Your task to perform on an android device: check the backup settings in the google photos Image 0: 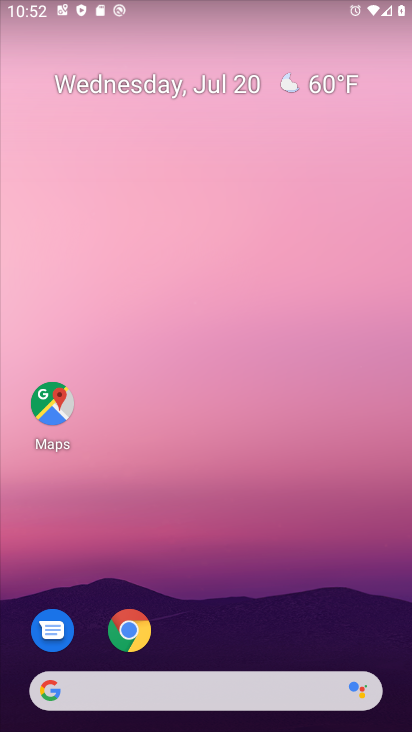
Step 0: drag from (224, 685) to (203, 140)
Your task to perform on an android device: check the backup settings in the google photos Image 1: 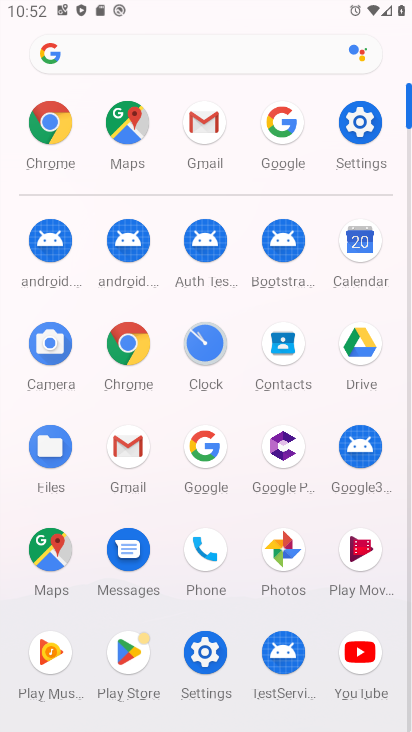
Step 1: click (279, 544)
Your task to perform on an android device: check the backup settings in the google photos Image 2: 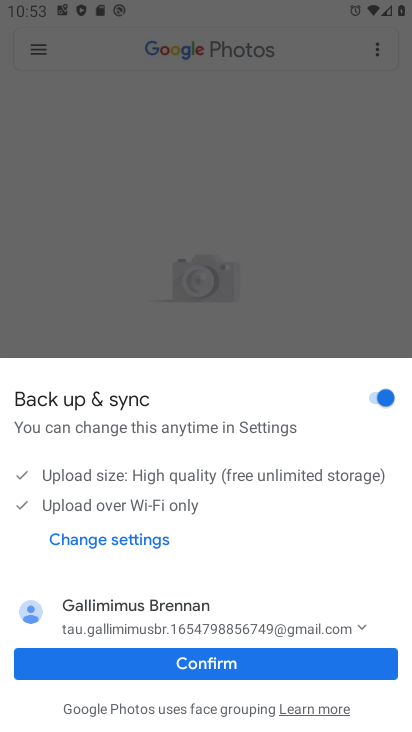
Step 2: click (207, 665)
Your task to perform on an android device: check the backup settings in the google photos Image 3: 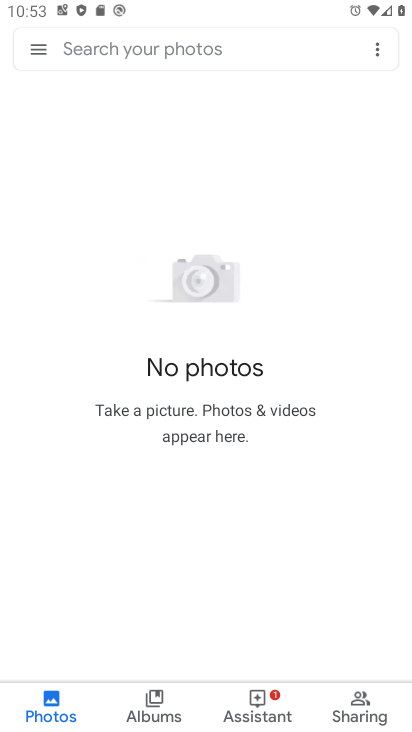
Step 3: click (34, 45)
Your task to perform on an android device: check the backup settings in the google photos Image 4: 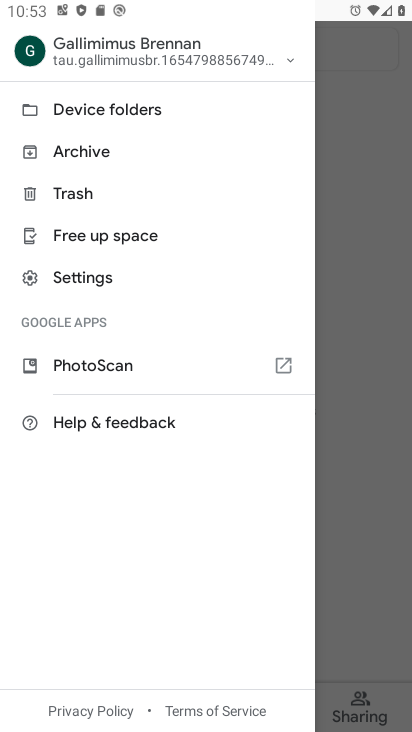
Step 4: click (77, 272)
Your task to perform on an android device: check the backup settings in the google photos Image 5: 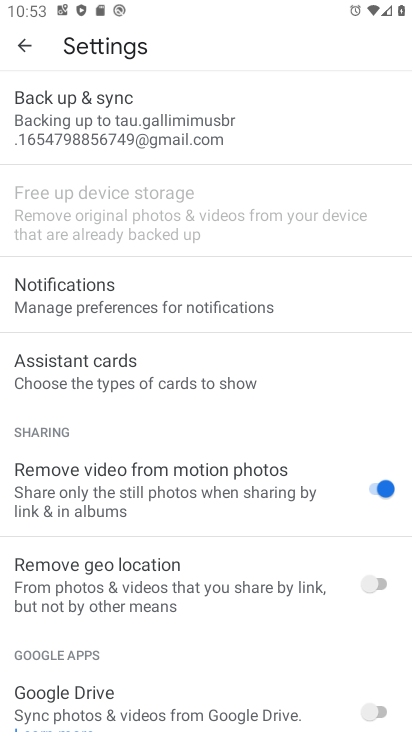
Step 5: click (97, 121)
Your task to perform on an android device: check the backup settings in the google photos Image 6: 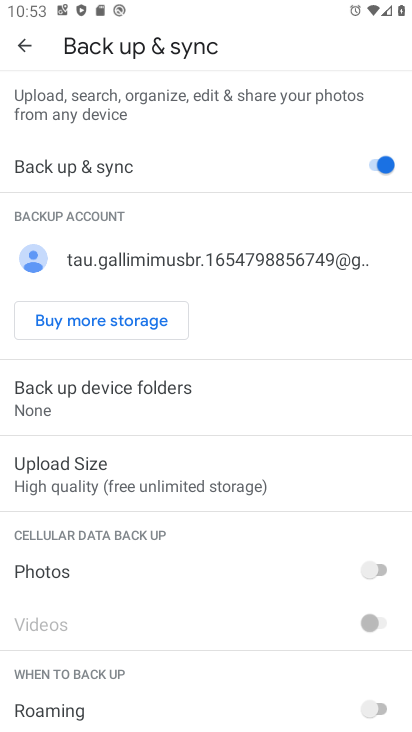
Step 6: task complete